Your task to perform on an android device: Go to Reddit.com Image 0: 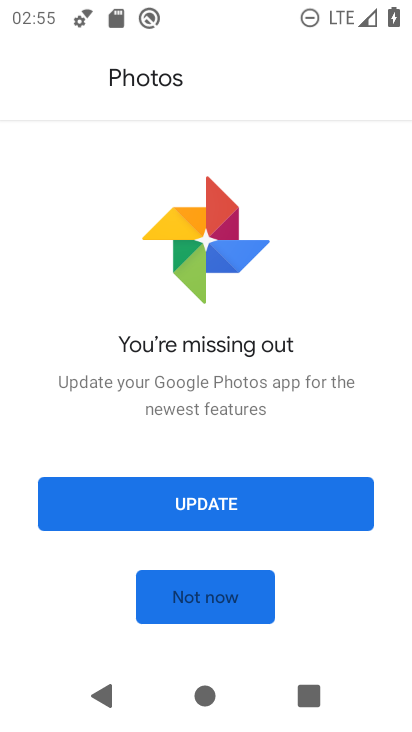
Step 0: press home button
Your task to perform on an android device: Go to Reddit.com Image 1: 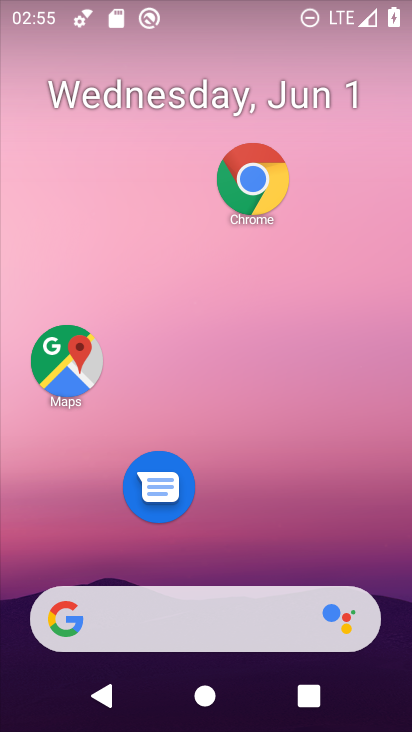
Step 1: click (243, 171)
Your task to perform on an android device: Go to Reddit.com Image 2: 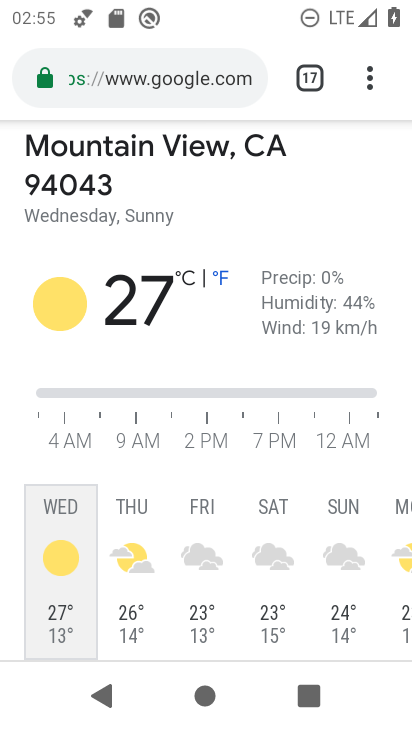
Step 2: drag from (121, 161) to (146, 717)
Your task to perform on an android device: Go to Reddit.com Image 3: 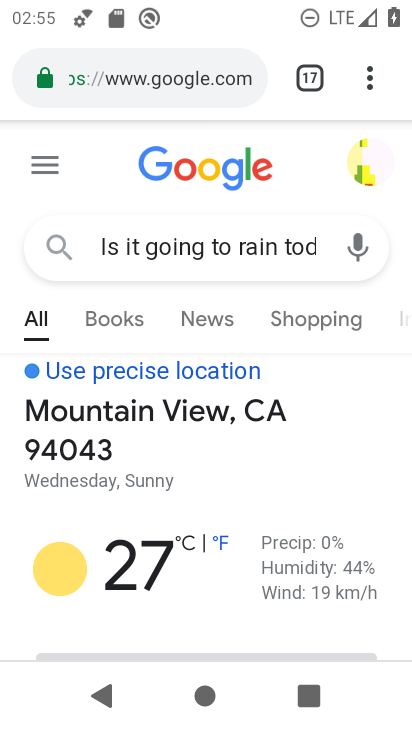
Step 3: click (351, 82)
Your task to perform on an android device: Go to Reddit.com Image 4: 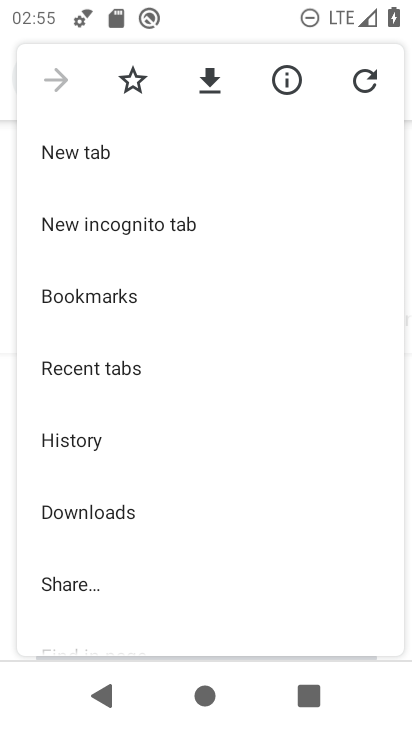
Step 4: click (99, 134)
Your task to perform on an android device: Go to Reddit.com Image 5: 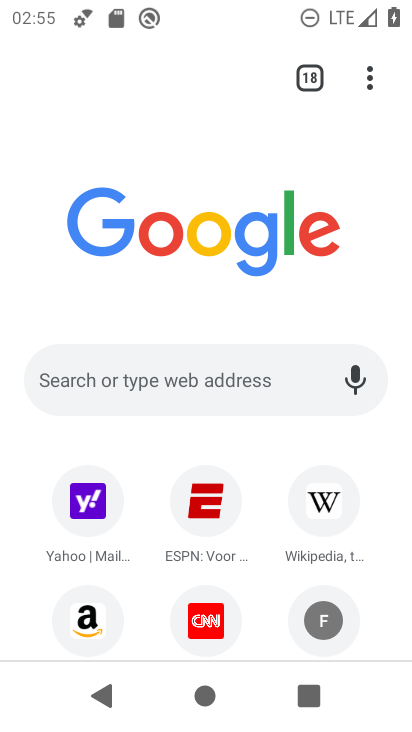
Step 5: click (269, 383)
Your task to perform on an android device: Go to Reddit.com Image 6: 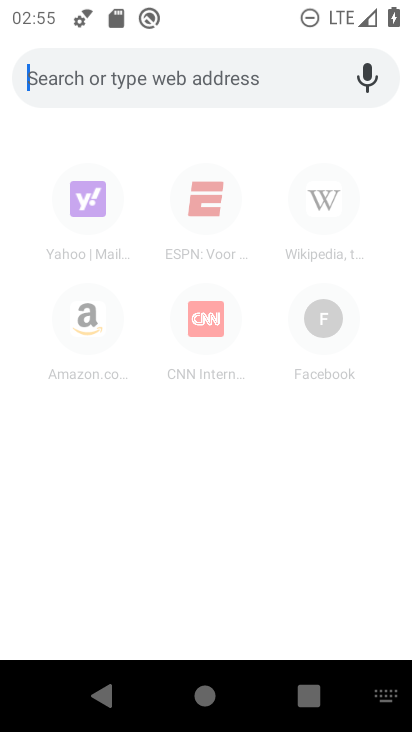
Step 6: type " Reddit.com"
Your task to perform on an android device: Go to Reddit.com Image 7: 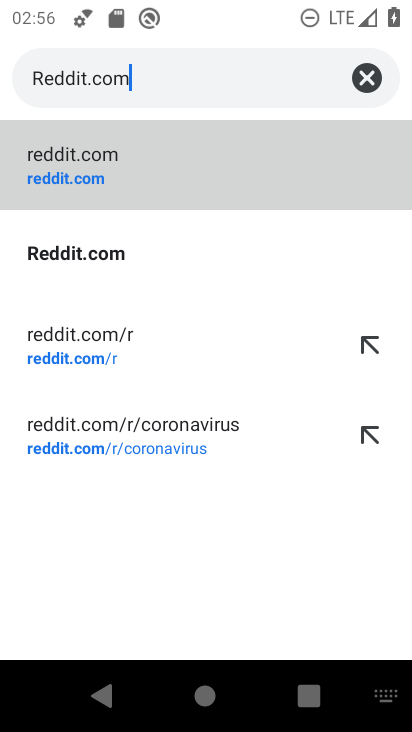
Step 7: click (219, 152)
Your task to perform on an android device: Go to Reddit.com Image 8: 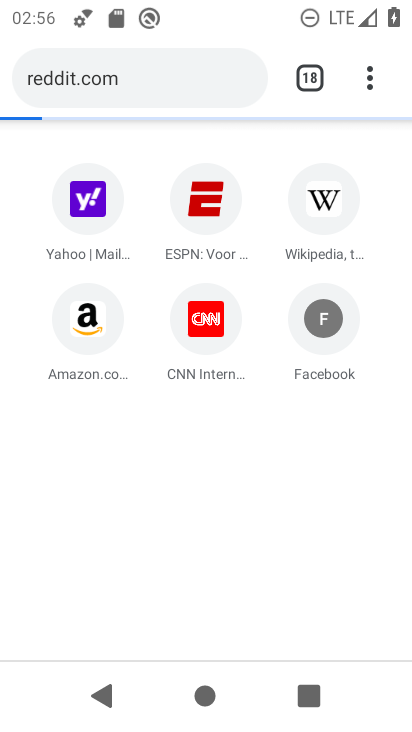
Step 8: task complete